Your task to perform on an android device: Open settings on Google Maps Image 0: 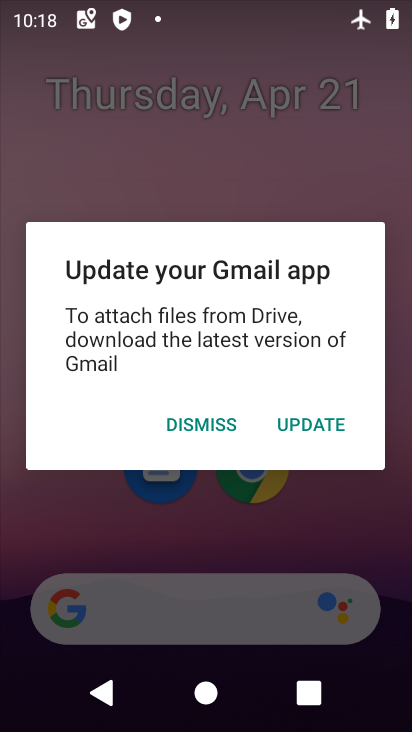
Step 0: press home button
Your task to perform on an android device: Open settings on Google Maps Image 1: 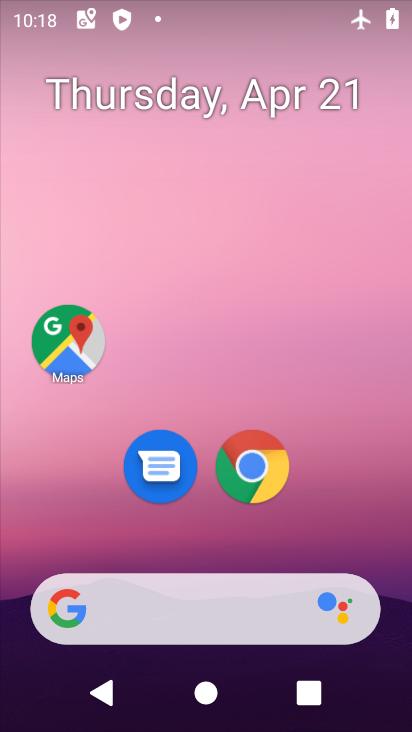
Step 1: drag from (362, 536) to (298, 126)
Your task to perform on an android device: Open settings on Google Maps Image 2: 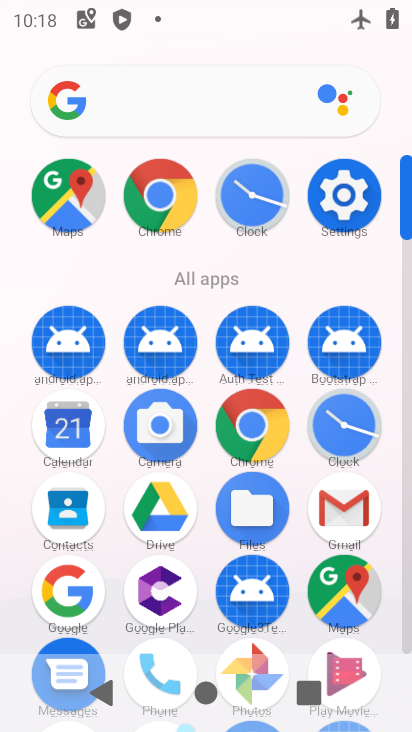
Step 2: click (341, 592)
Your task to perform on an android device: Open settings on Google Maps Image 3: 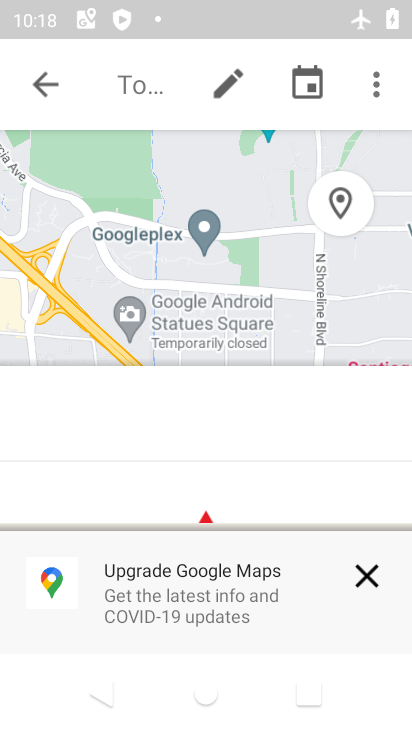
Step 3: click (54, 82)
Your task to perform on an android device: Open settings on Google Maps Image 4: 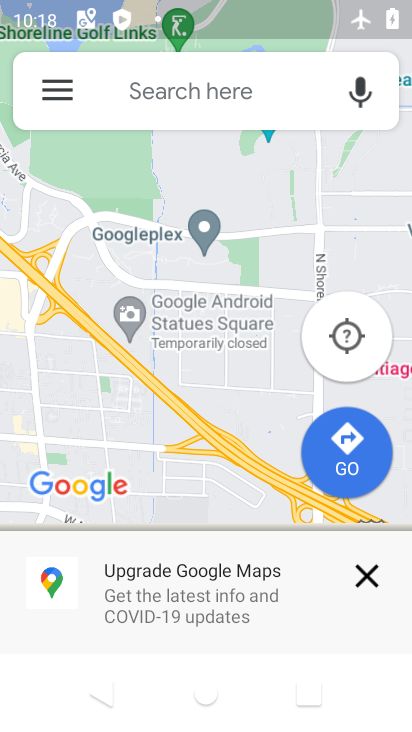
Step 4: click (54, 82)
Your task to perform on an android device: Open settings on Google Maps Image 5: 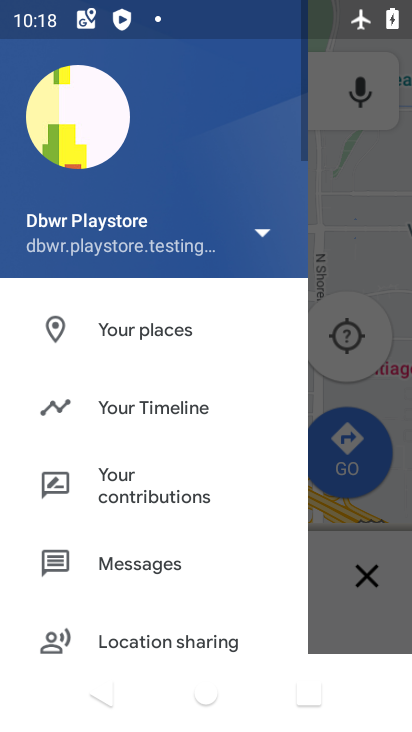
Step 5: drag from (190, 564) to (247, 135)
Your task to perform on an android device: Open settings on Google Maps Image 6: 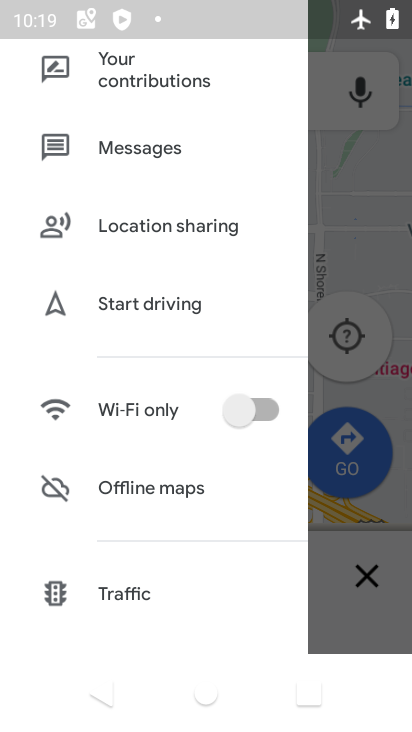
Step 6: drag from (226, 570) to (239, 167)
Your task to perform on an android device: Open settings on Google Maps Image 7: 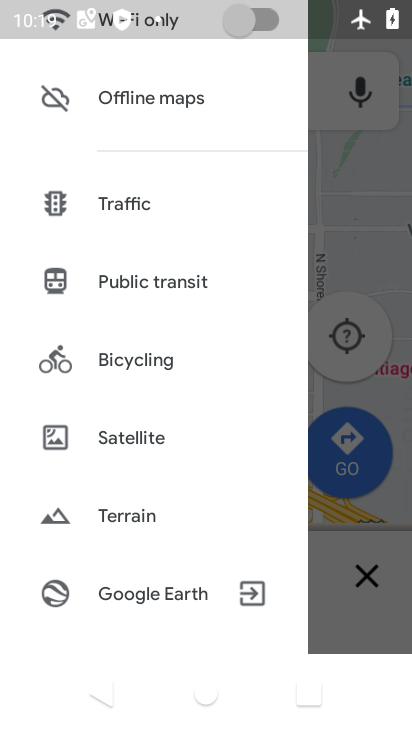
Step 7: drag from (143, 486) to (217, 198)
Your task to perform on an android device: Open settings on Google Maps Image 8: 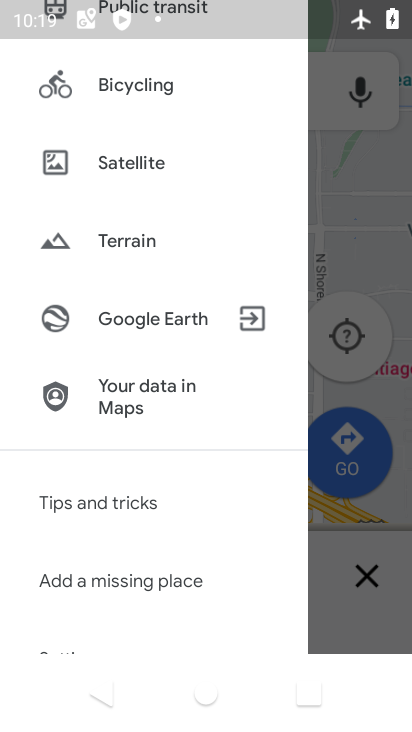
Step 8: drag from (107, 558) to (264, 218)
Your task to perform on an android device: Open settings on Google Maps Image 9: 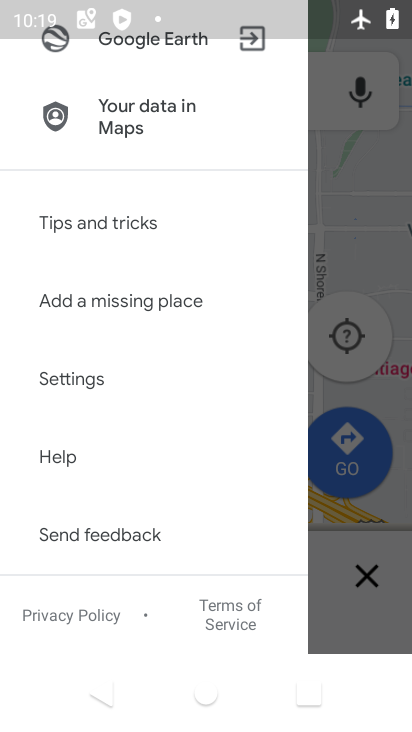
Step 9: click (95, 380)
Your task to perform on an android device: Open settings on Google Maps Image 10: 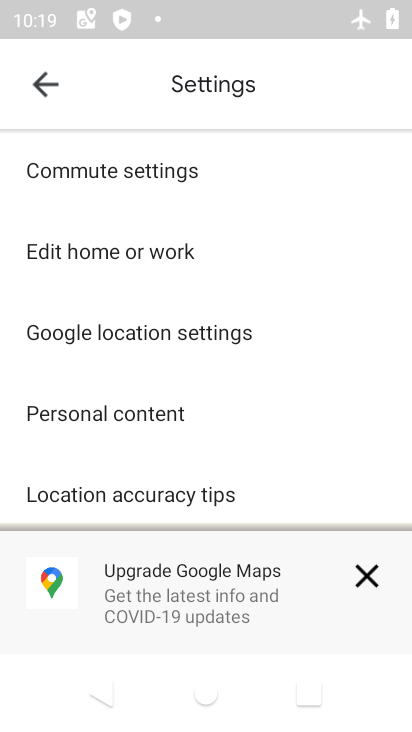
Step 10: task complete